Your task to perform on an android device: turn on bluetooth scan Image 0: 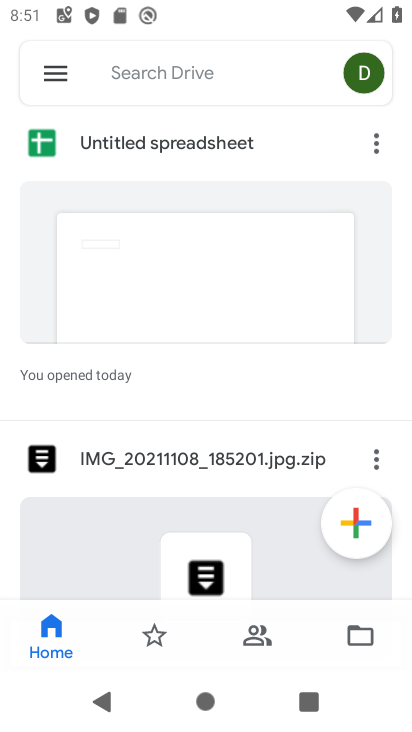
Step 0: press home button
Your task to perform on an android device: turn on bluetooth scan Image 1: 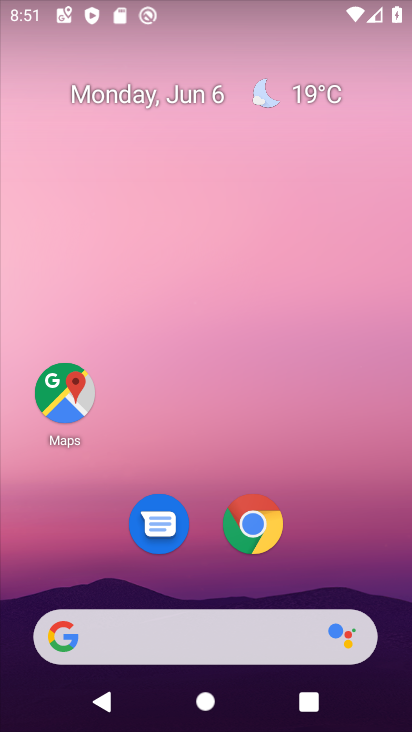
Step 1: drag from (209, 446) to (196, 2)
Your task to perform on an android device: turn on bluetooth scan Image 2: 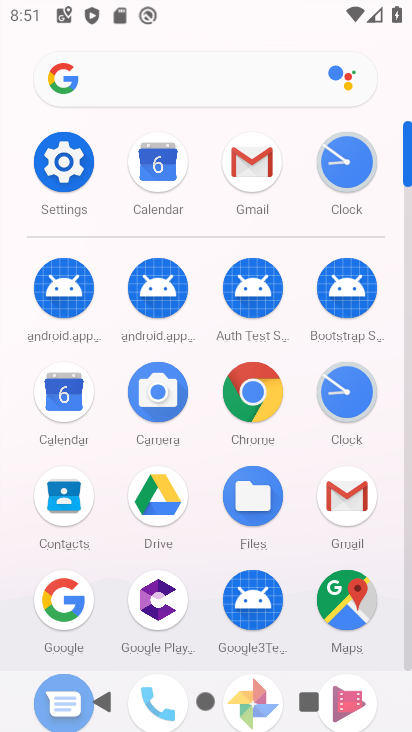
Step 2: click (59, 163)
Your task to perform on an android device: turn on bluetooth scan Image 3: 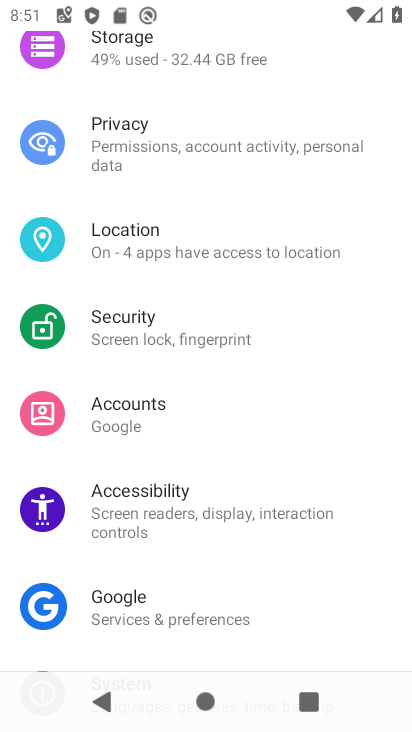
Step 3: click (241, 248)
Your task to perform on an android device: turn on bluetooth scan Image 4: 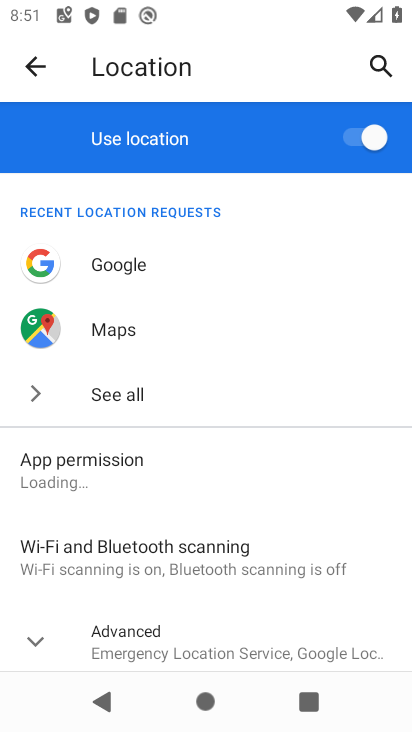
Step 4: click (197, 551)
Your task to perform on an android device: turn on bluetooth scan Image 5: 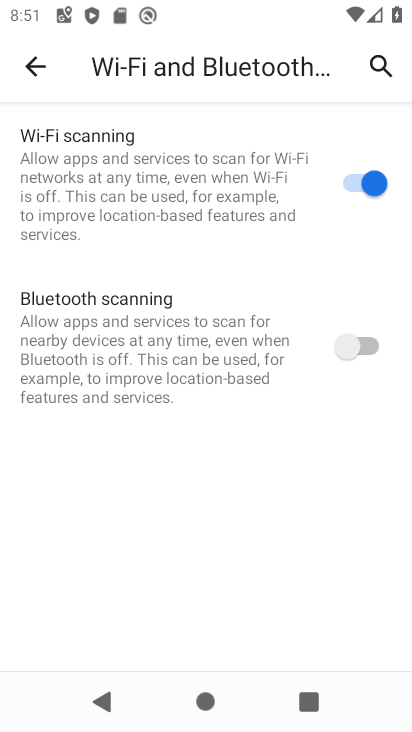
Step 5: click (373, 338)
Your task to perform on an android device: turn on bluetooth scan Image 6: 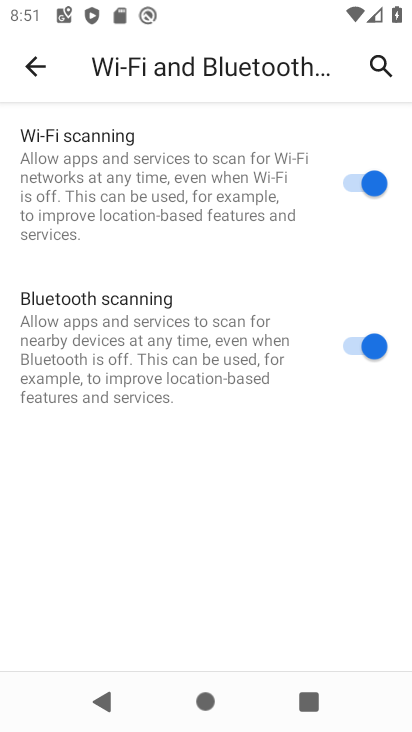
Step 6: task complete